Your task to perform on an android device: Open Google Chrome and open the bookmarks view Image 0: 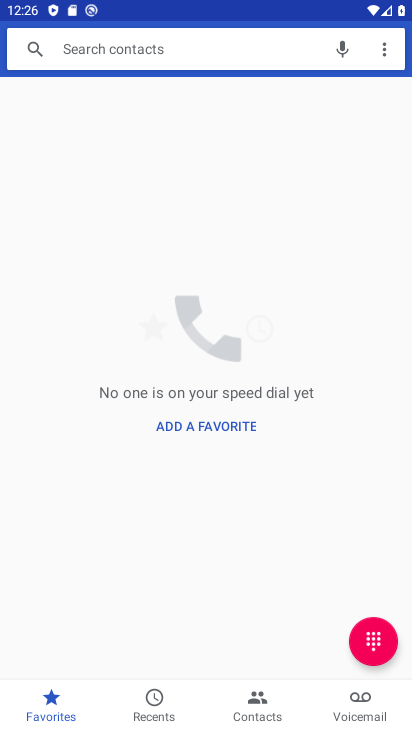
Step 0: press home button
Your task to perform on an android device: Open Google Chrome and open the bookmarks view Image 1: 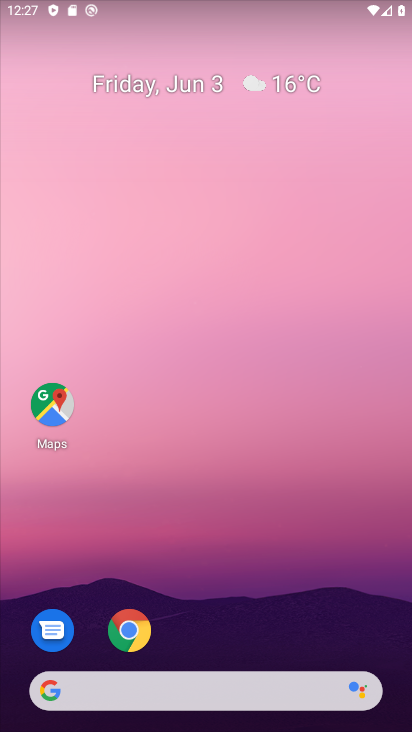
Step 1: click (133, 628)
Your task to perform on an android device: Open Google Chrome and open the bookmarks view Image 2: 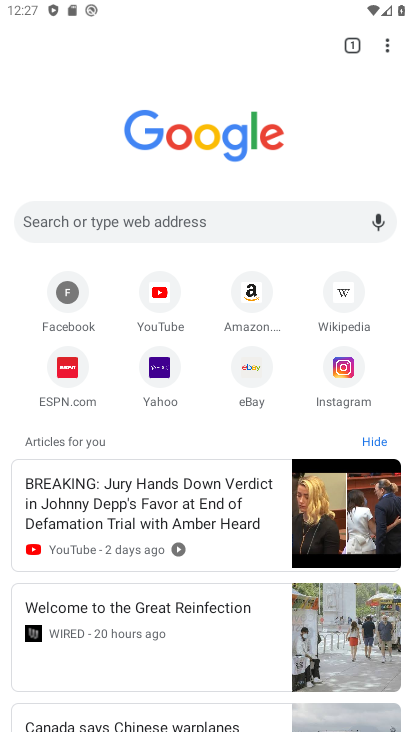
Step 2: click (380, 57)
Your task to perform on an android device: Open Google Chrome and open the bookmarks view Image 3: 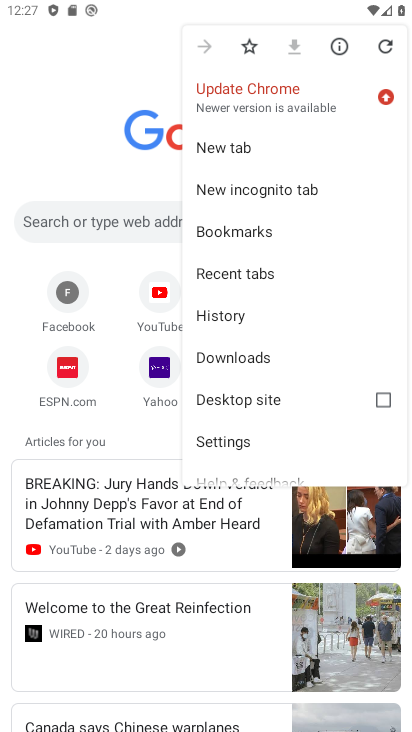
Step 3: click (235, 233)
Your task to perform on an android device: Open Google Chrome and open the bookmarks view Image 4: 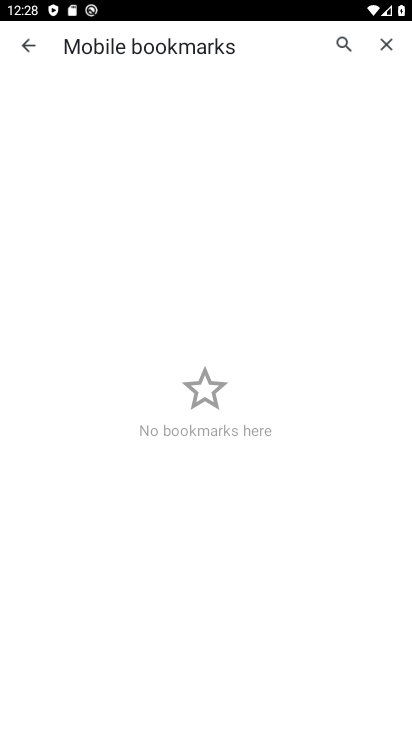
Step 4: task complete